Your task to perform on an android device: Go to Yahoo.com Image 0: 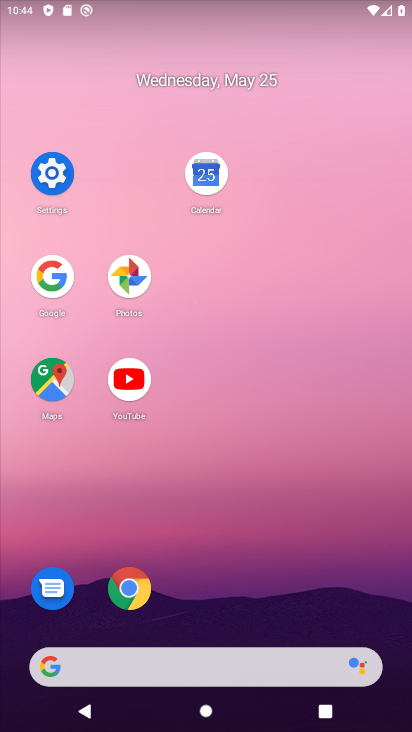
Step 0: click (133, 582)
Your task to perform on an android device: Go to Yahoo.com Image 1: 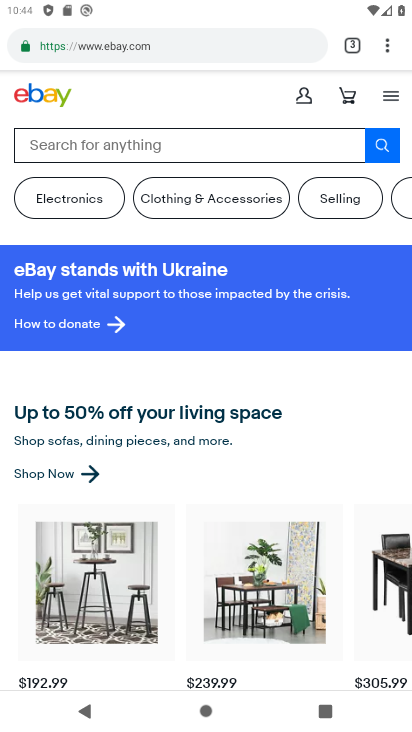
Step 1: click (355, 42)
Your task to perform on an android device: Go to Yahoo.com Image 2: 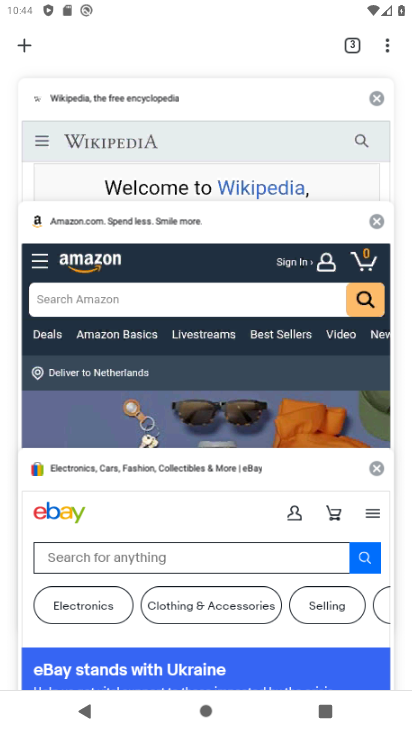
Step 2: click (41, 47)
Your task to perform on an android device: Go to Yahoo.com Image 3: 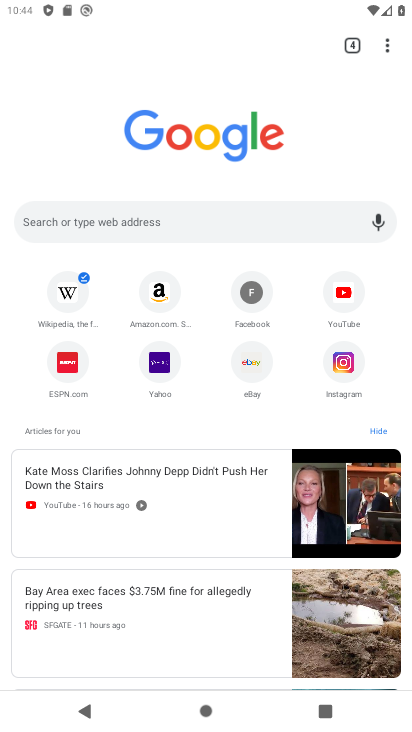
Step 3: click (154, 357)
Your task to perform on an android device: Go to Yahoo.com Image 4: 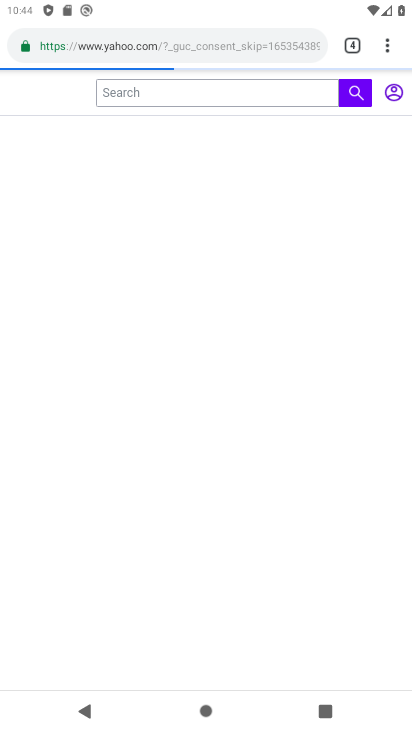
Step 4: task complete